Your task to perform on an android device: Open settings Image 0: 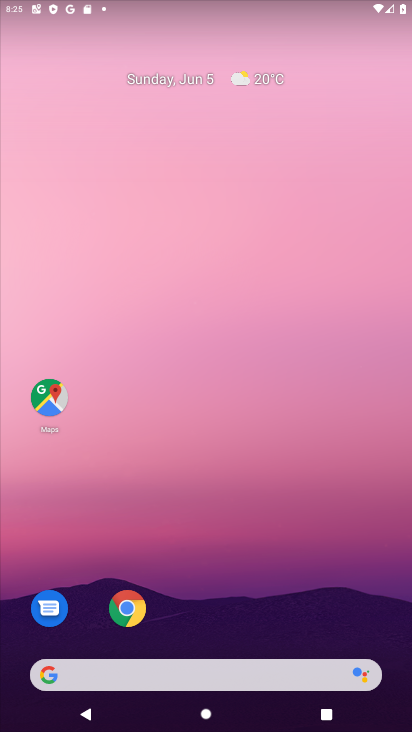
Step 0: drag from (14, 603) to (302, 149)
Your task to perform on an android device: Open settings Image 1: 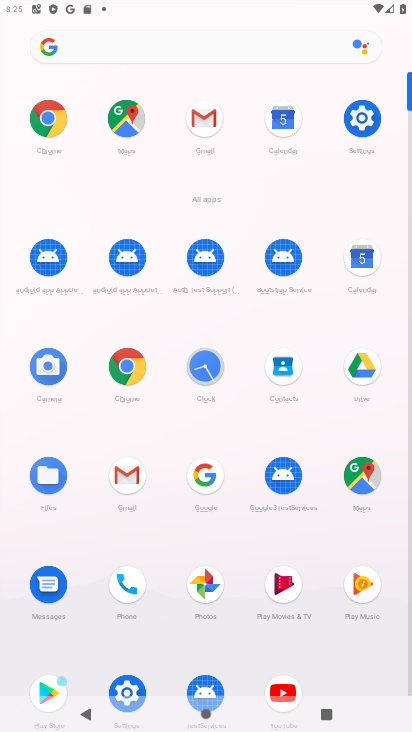
Step 1: click (359, 116)
Your task to perform on an android device: Open settings Image 2: 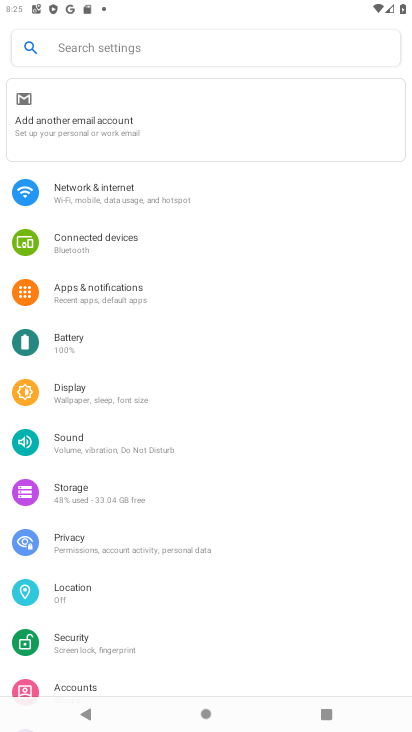
Step 2: task complete